Your task to perform on an android device: toggle airplane mode Image 0: 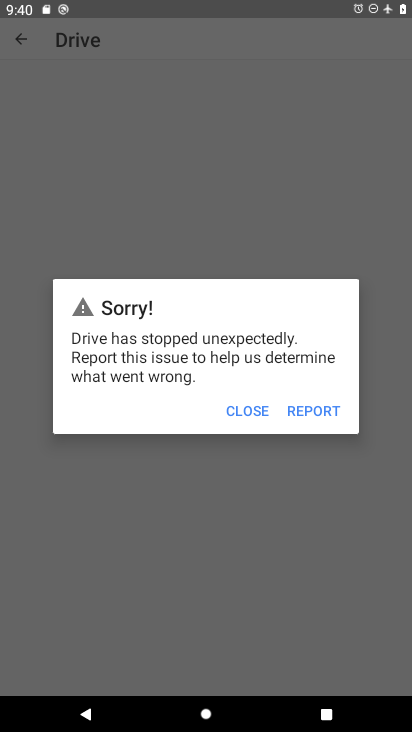
Step 0: press home button
Your task to perform on an android device: toggle airplane mode Image 1: 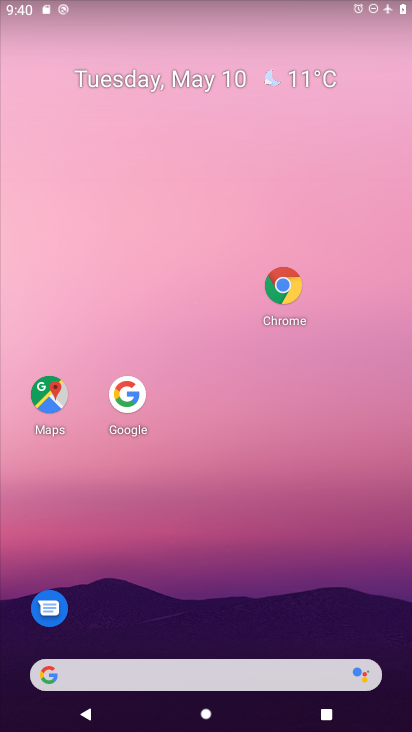
Step 1: drag from (222, 674) to (294, 113)
Your task to perform on an android device: toggle airplane mode Image 2: 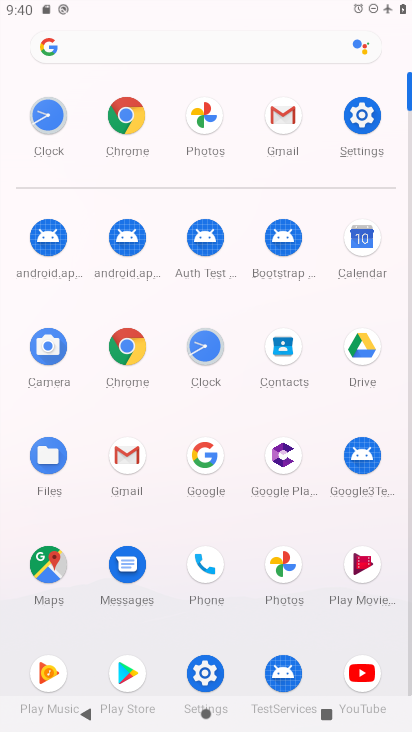
Step 2: click (363, 123)
Your task to perform on an android device: toggle airplane mode Image 3: 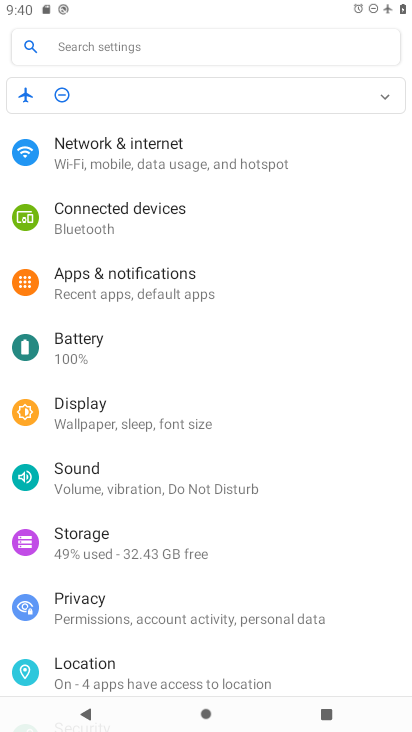
Step 3: click (199, 159)
Your task to perform on an android device: toggle airplane mode Image 4: 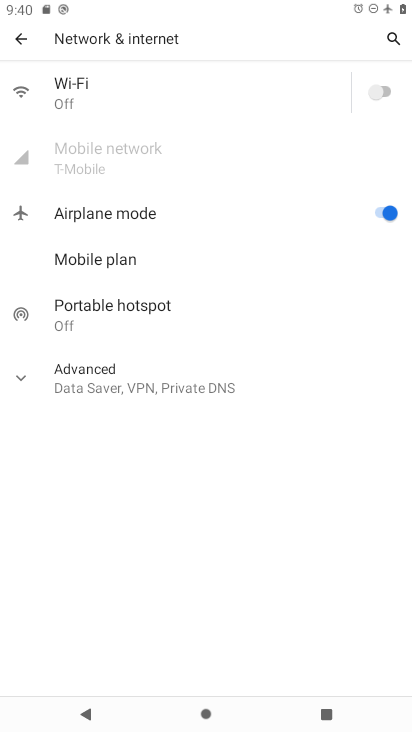
Step 4: click (378, 215)
Your task to perform on an android device: toggle airplane mode Image 5: 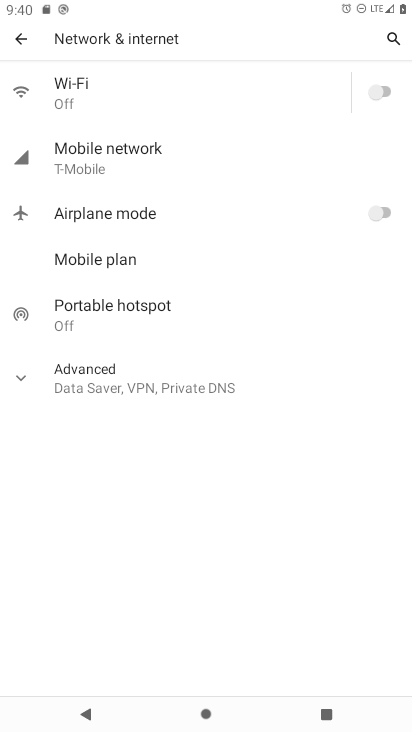
Step 5: task complete